Your task to perform on an android device: make emails show in primary in the gmail app Image 0: 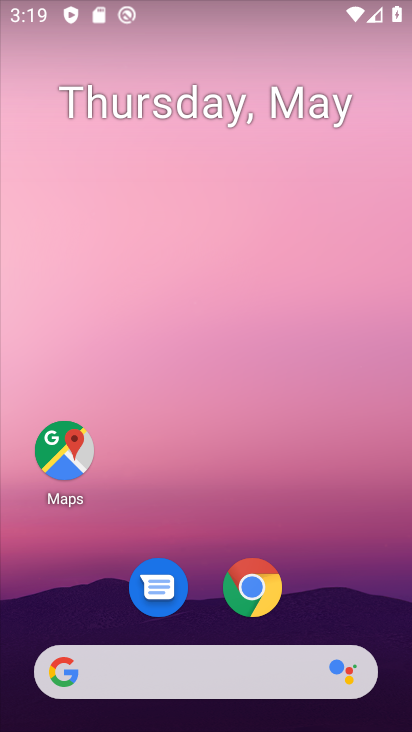
Step 0: drag from (167, 723) to (157, 179)
Your task to perform on an android device: make emails show in primary in the gmail app Image 1: 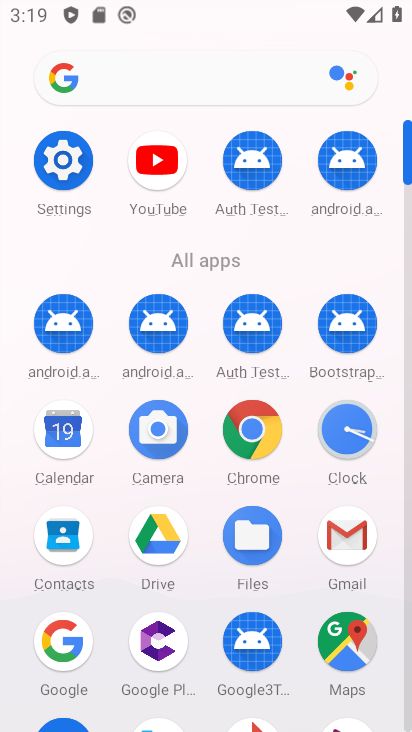
Step 1: click (339, 537)
Your task to perform on an android device: make emails show in primary in the gmail app Image 2: 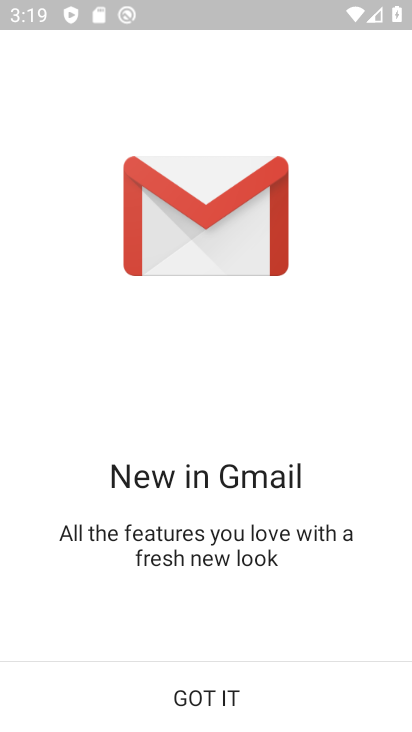
Step 2: click (198, 692)
Your task to perform on an android device: make emails show in primary in the gmail app Image 3: 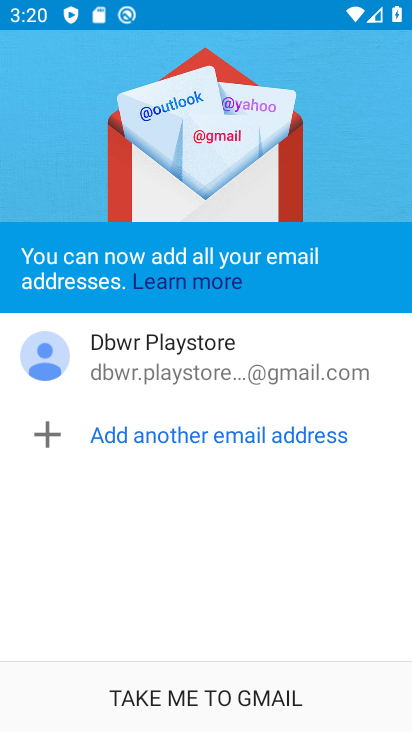
Step 3: click (240, 692)
Your task to perform on an android device: make emails show in primary in the gmail app Image 4: 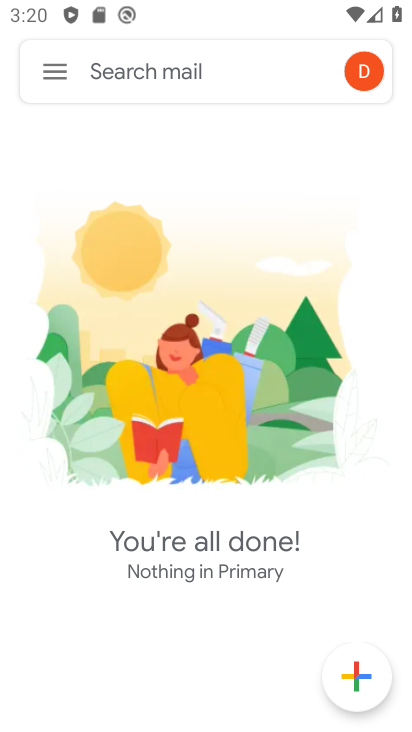
Step 4: click (51, 71)
Your task to perform on an android device: make emails show in primary in the gmail app Image 5: 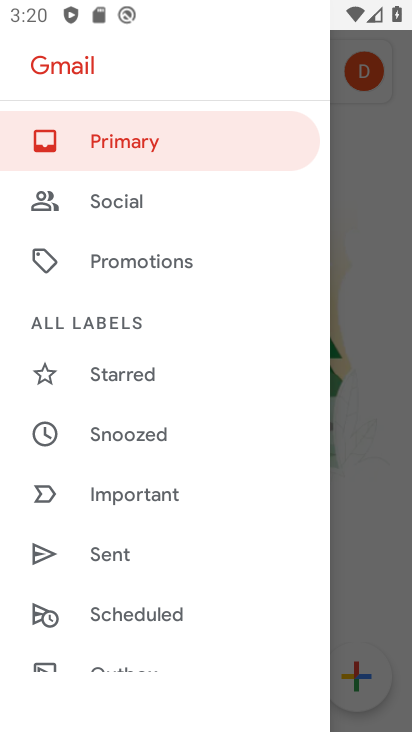
Step 5: drag from (124, 636) to (112, 277)
Your task to perform on an android device: make emails show in primary in the gmail app Image 6: 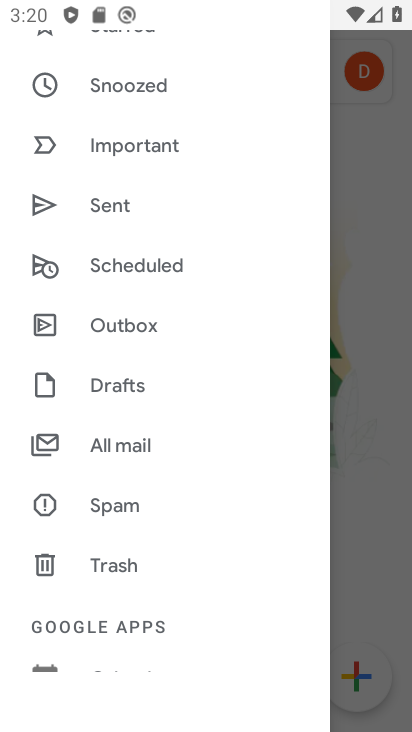
Step 6: drag from (112, 627) to (114, 298)
Your task to perform on an android device: make emails show in primary in the gmail app Image 7: 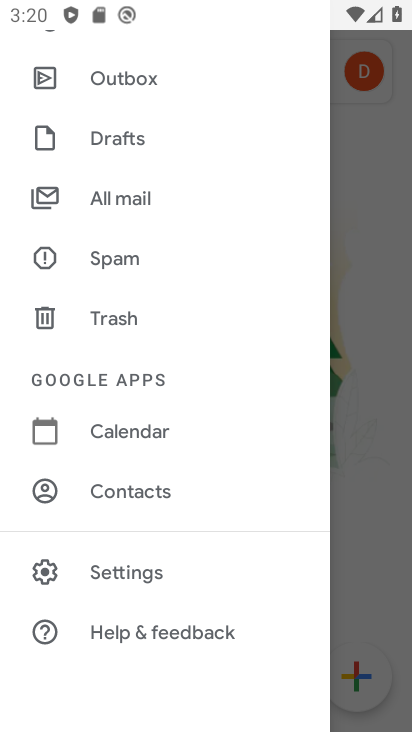
Step 7: click (127, 572)
Your task to perform on an android device: make emails show in primary in the gmail app Image 8: 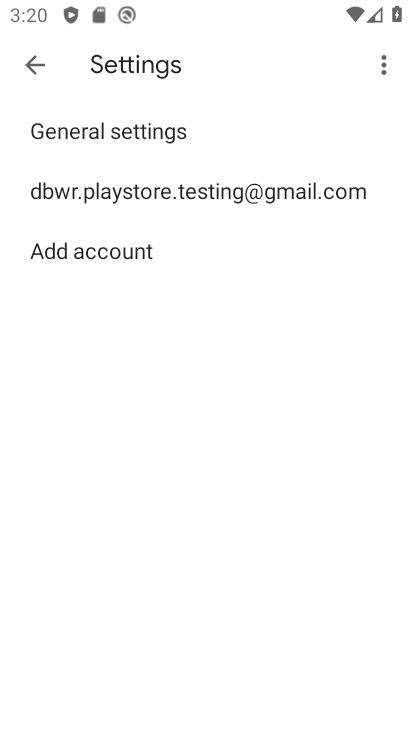
Step 8: click (112, 182)
Your task to perform on an android device: make emails show in primary in the gmail app Image 9: 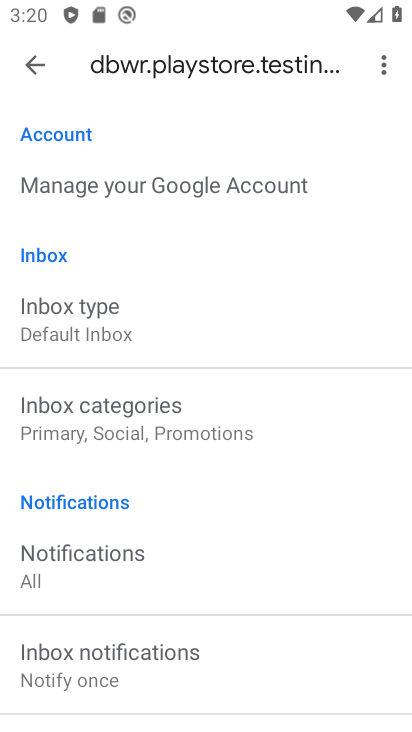
Step 9: click (77, 427)
Your task to perform on an android device: make emails show in primary in the gmail app Image 10: 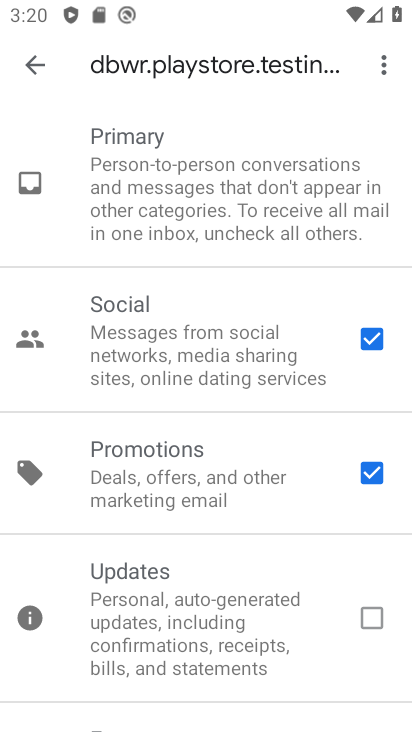
Step 10: click (381, 462)
Your task to perform on an android device: make emails show in primary in the gmail app Image 11: 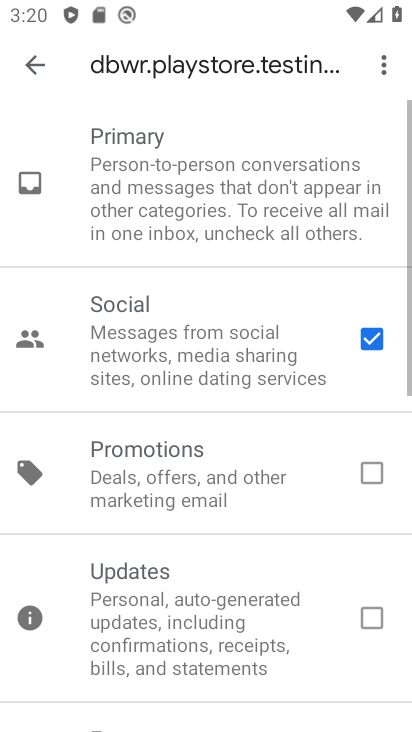
Step 11: click (372, 328)
Your task to perform on an android device: make emails show in primary in the gmail app Image 12: 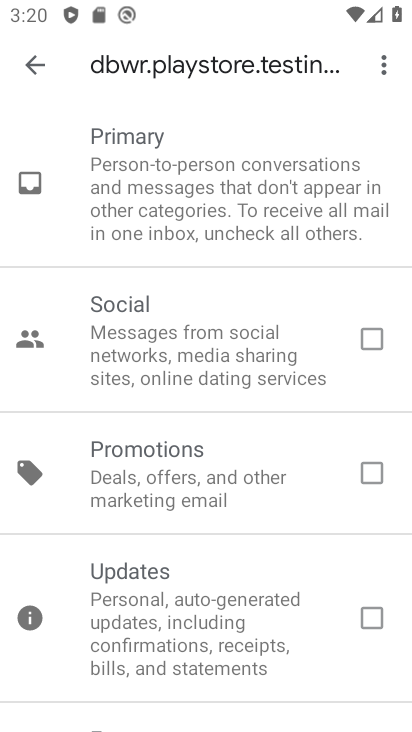
Step 12: click (36, 64)
Your task to perform on an android device: make emails show in primary in the gmail app Image 13: 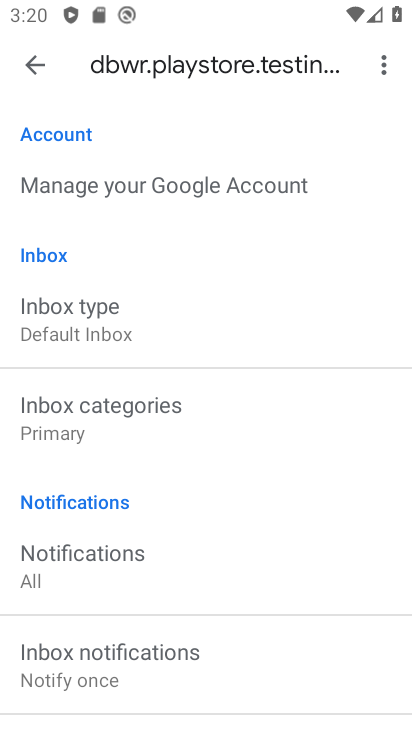
Step 13: task complete